Your task to perform on an android device: Open Amazon Image 0: 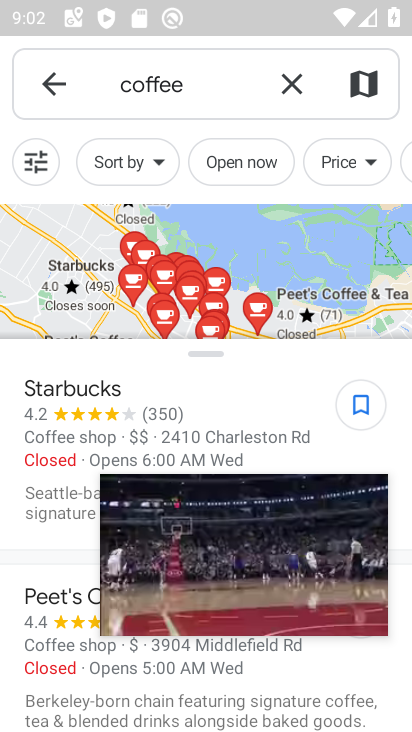
Step 0: click (229, 568)
Your task to perform on an android device: Open Amazon Image 1: 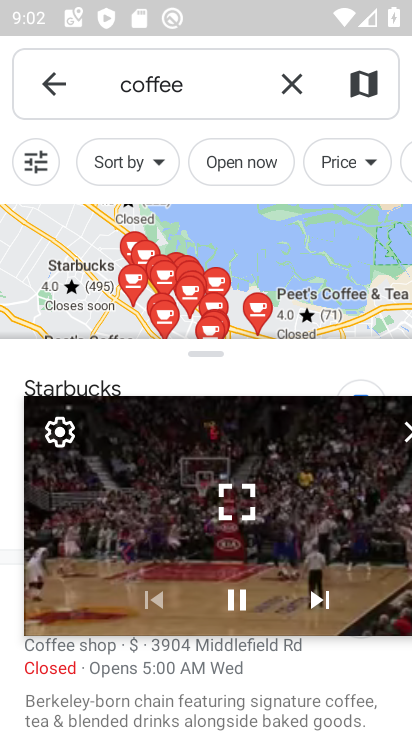
Step 1: click (410, 438)
Your task to perform on an android device: Open Amazon Image 2: 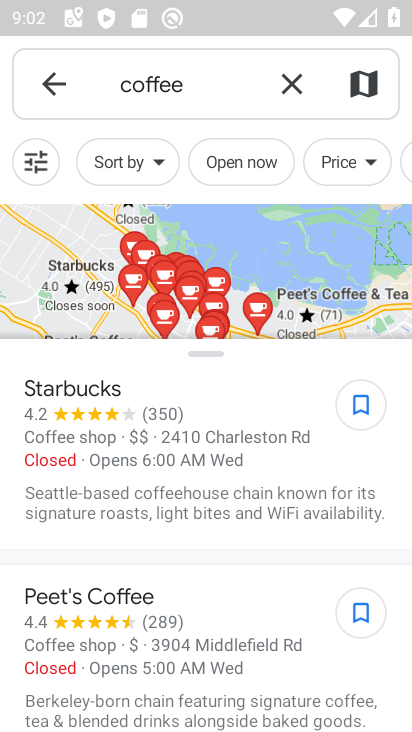
Step 2: press home button
Your task to perform on an android device: Open Amazon Image 3: 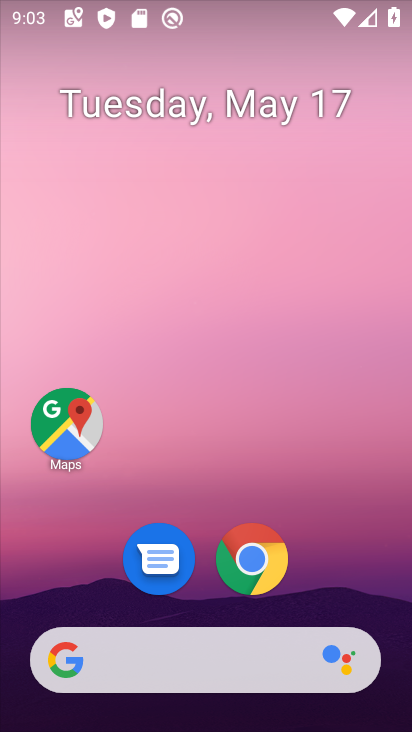
Step 3: click (246, 564)
Your task to perform on an android device: Open Amazon Image 4: 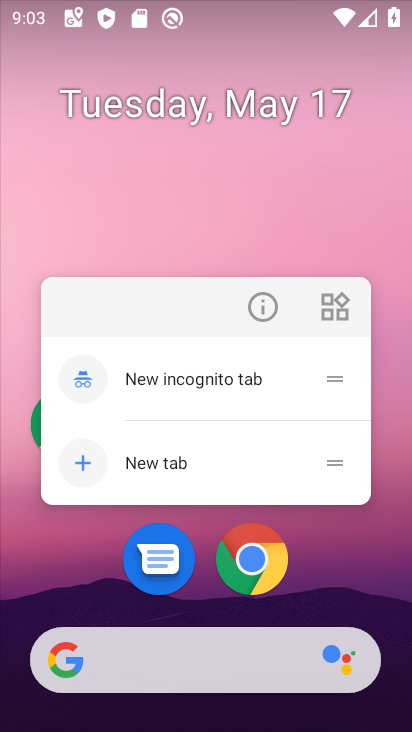
Step 4: click (255, 564)
Your task to perform on an android device: Open Amazon Image 5: 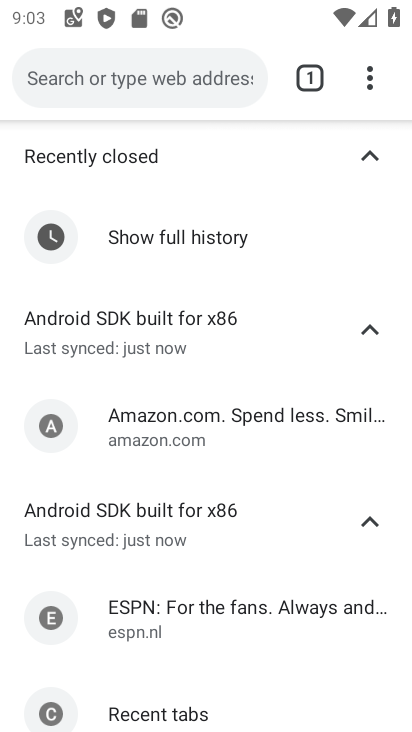
Step 5: click (369, 88)
Your task to perform on an android device: Open Amazon Image 6: 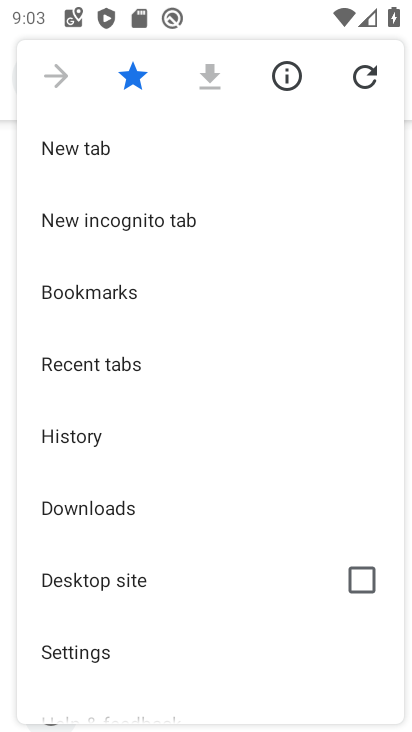
Step 6: click (80, 154)
Your task to perform on an android device: Open Amazon Image 7: 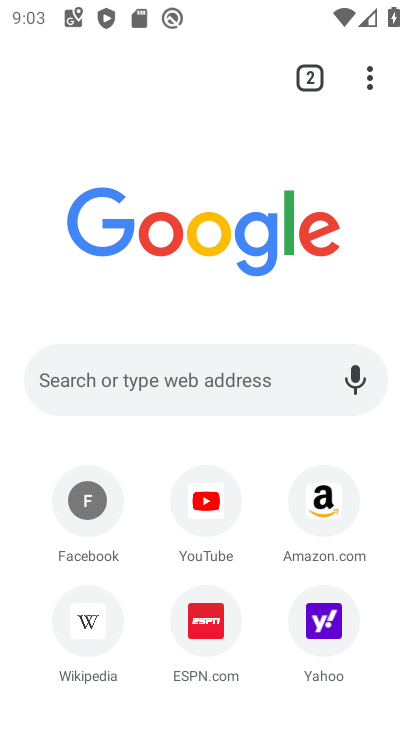
Step 7: click (333, 512)
Your task to perform on an android device: Open Amazon Image 8: 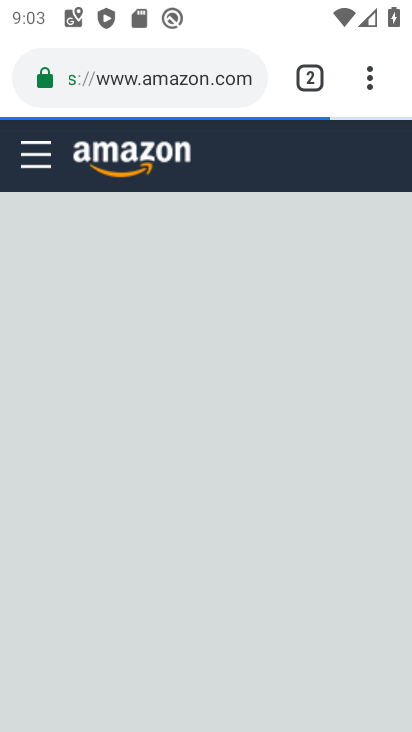
Step 8: task complete